Your task to perform on an android device: change keyboard looks Image 0: 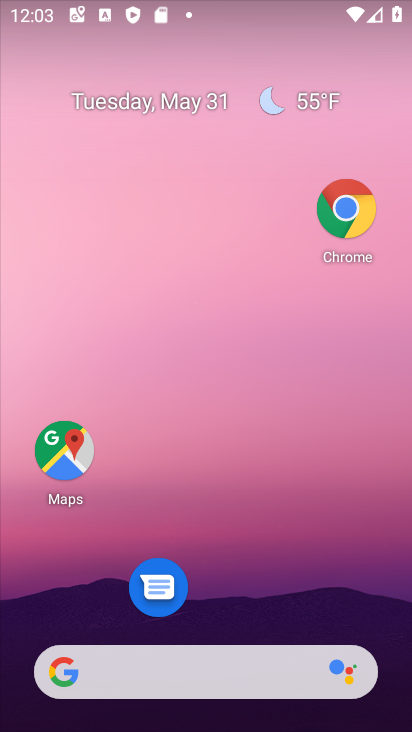
Step 0: drag from (194, 623) to (183, 340)
Your task to perform on an android device: change keyboard looks Image 1: 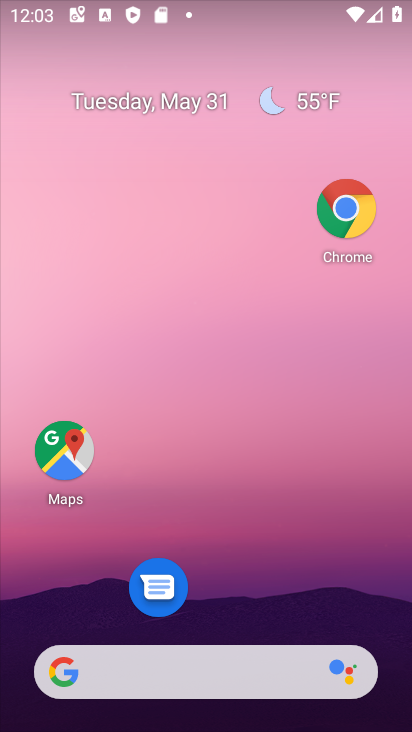
Step 1: drag from (204, 360) to (145, 20)
Your task to perform on an android device: change keyboard looks Image 2: 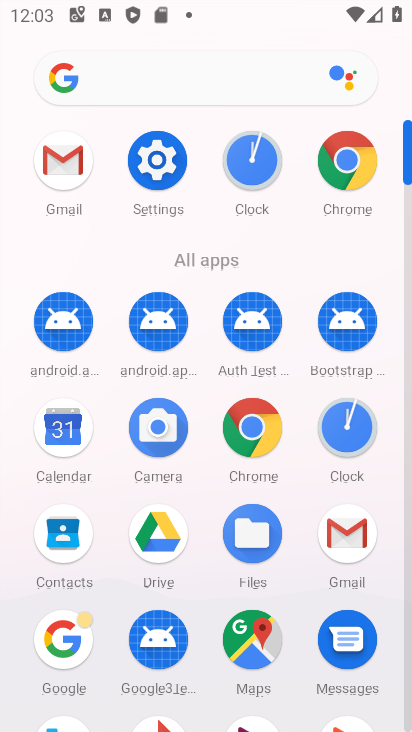
Step 2: click (141, 238)
Your task to perform on an android device: change keyboard looks Image 3: 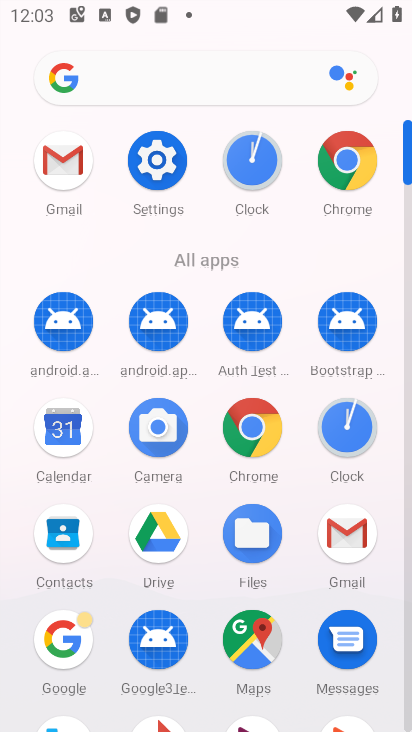
Step 3: click (145, 170)
Your task to perform on an android device: change keyboard looks Image 4: 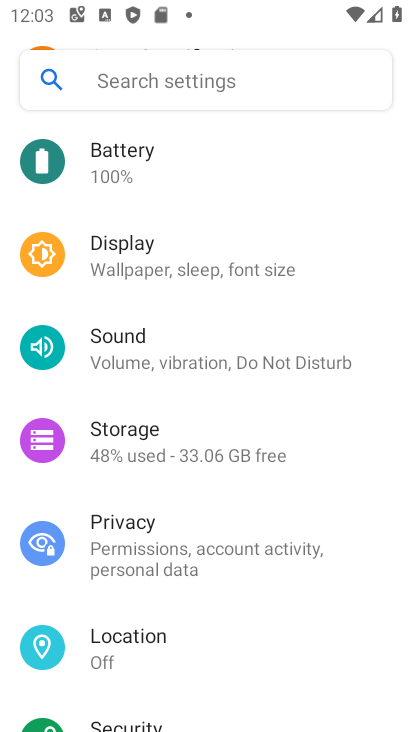
Step 4: drag from (207, 663) to (235, 229)
Your task to perform on an android device: change keyboard looks Image 5: 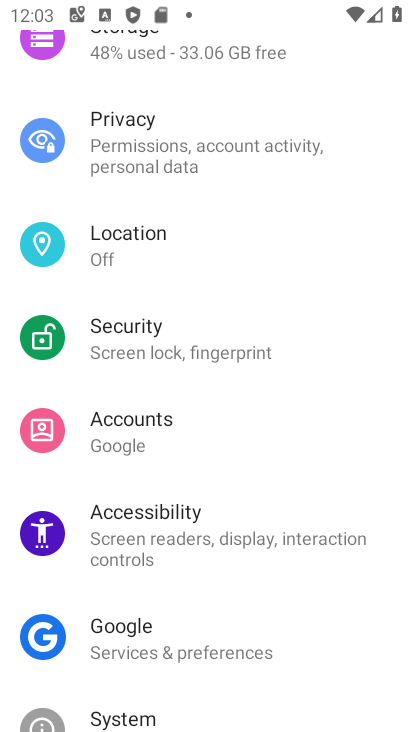
Step 5: drag from (138, 670) to (239, 219)
Your task to perform on an android device: change keyboard looks Image 6: 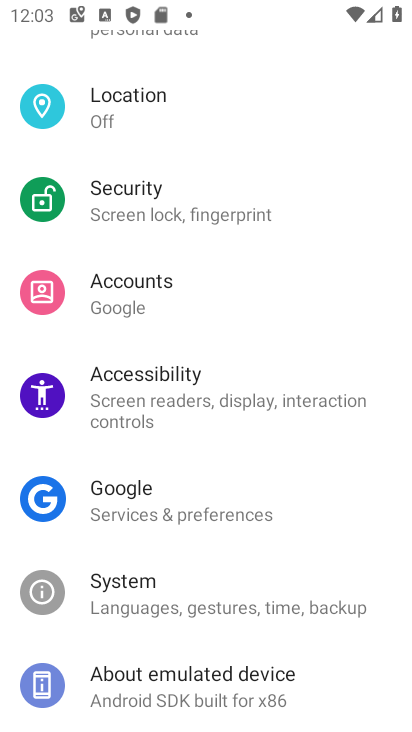
Step 6: click (162, 618)
Your task to perform on an android device: change keyboard looks Image 7: 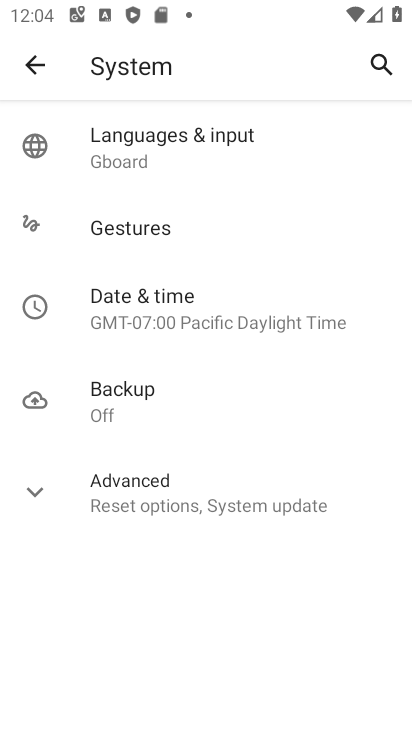
Step 7: click (192, 164)
Your task to perform on an android device: change keyboard looks Image 8: 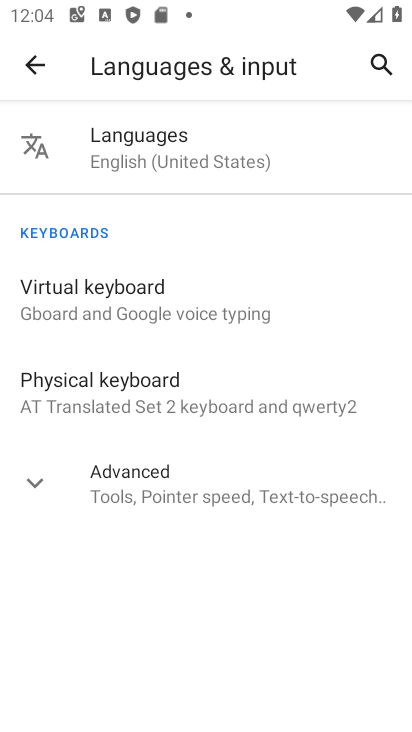
Step 8: click (133, 314)
Your task to perform on an android device: change keyboard looks Image 9: 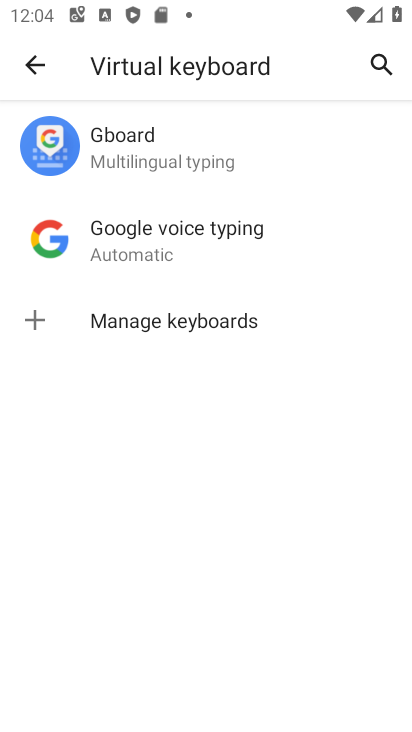
Step 9: click (275, 141)
Your task to perform on an android device: change keyboard looks Image 10: 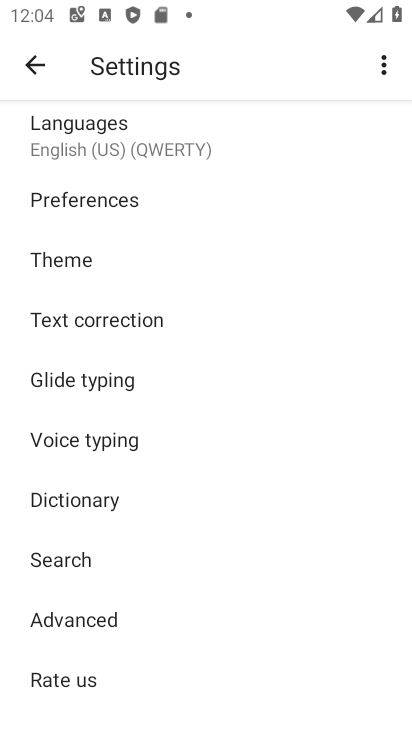
Step 10: click (83, 250)
Your task to perform on an android device: change keyboard looks Image 11: 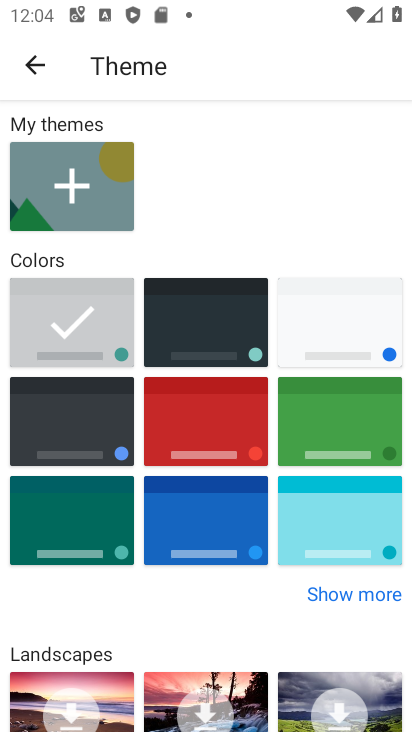
Step 11: click (64, 716)
Your task to perform on an android device: change keyboard looks Image 12: 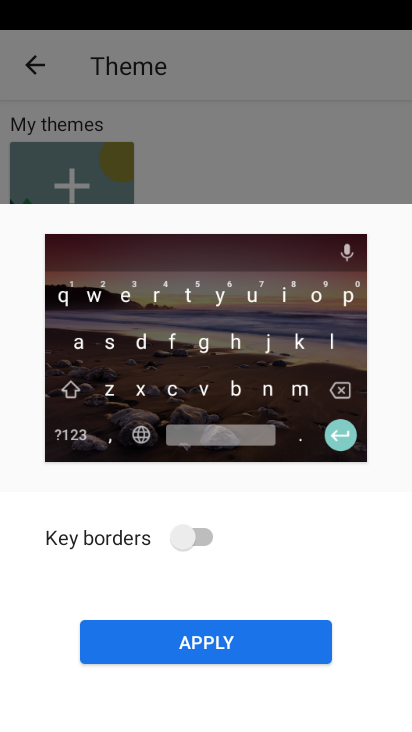
Step 12: click (190, 639)
Your task to perform on an android device: change keyboard looks Image 13: 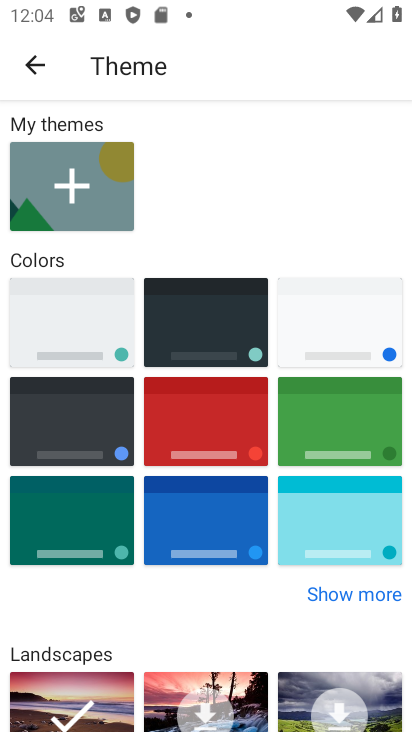
Step 13: task complete